Your task to perform on an android device: Turn on the flashlight Image 0: 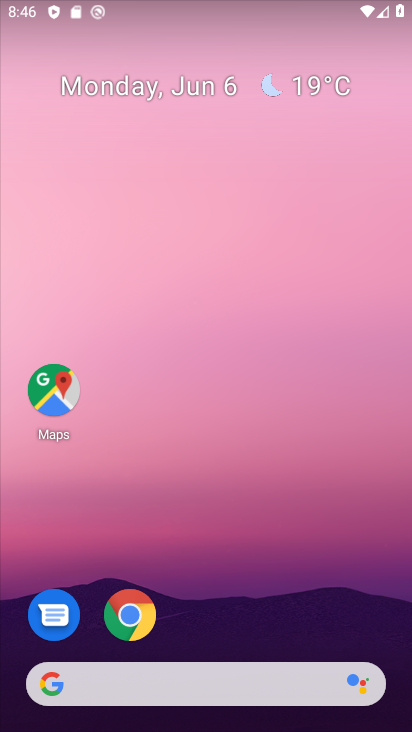
Step 0: drag from (326, 612) to (270, 256)
Your task to perform on an android device: Turn on the flashlight Image 1: 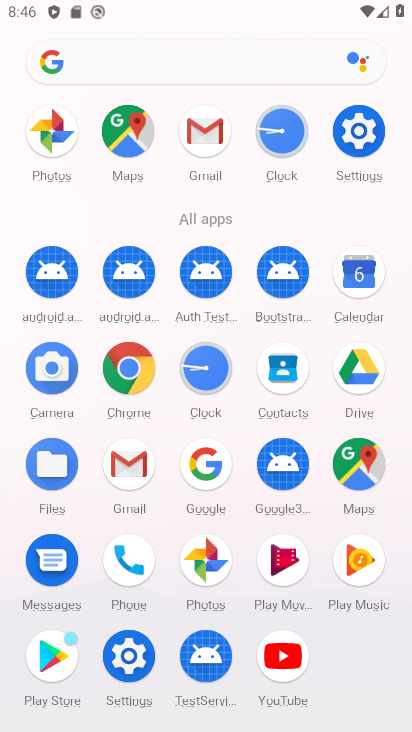
Step 1: click (341, 150)
Your task to perform on an android device: Turn on the flashlight Image 2: 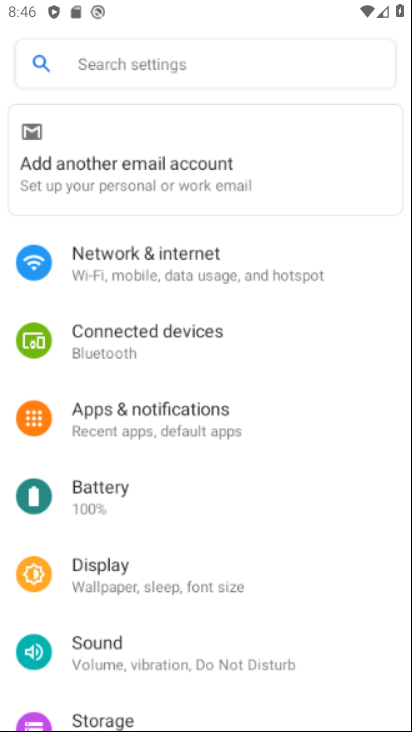
Step 2: task complete